Your task to perform on an android device: Open the stopwatch Image 0: 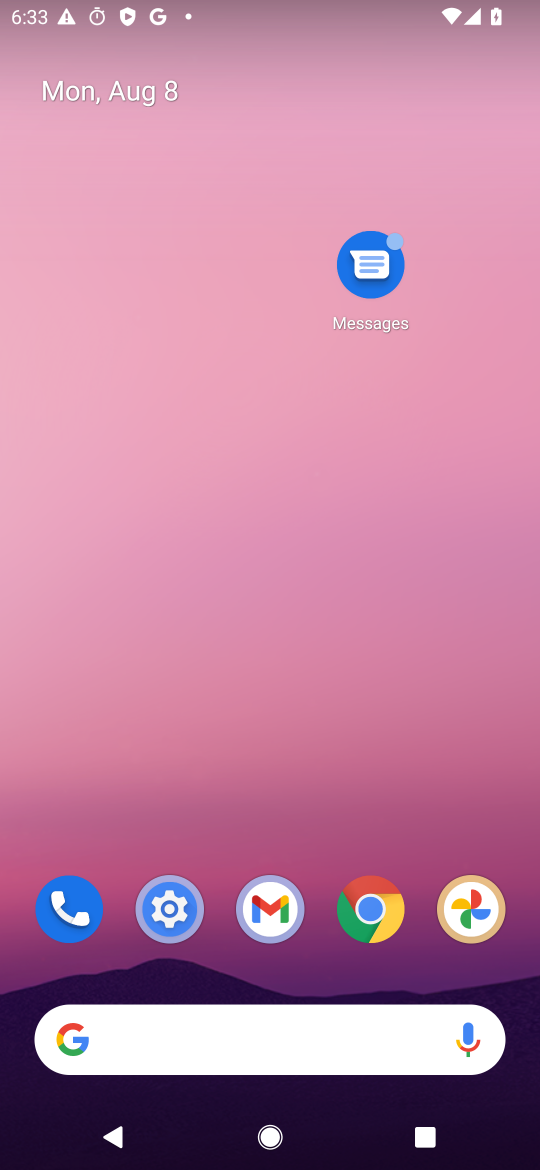
Step 0: drag from (221, 1057) to (340, 160)
Your task to perform on an android device: Open the stopwatch Image 1: 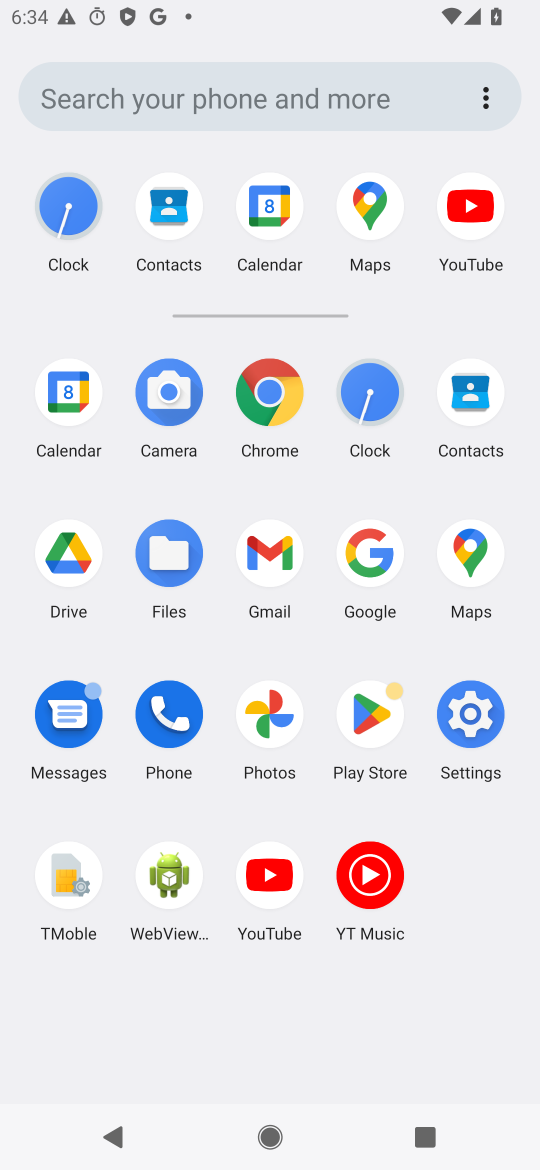
Step 1: click (360, 409)
Your task to perform on an android device: Open the stopwatch Image 2: 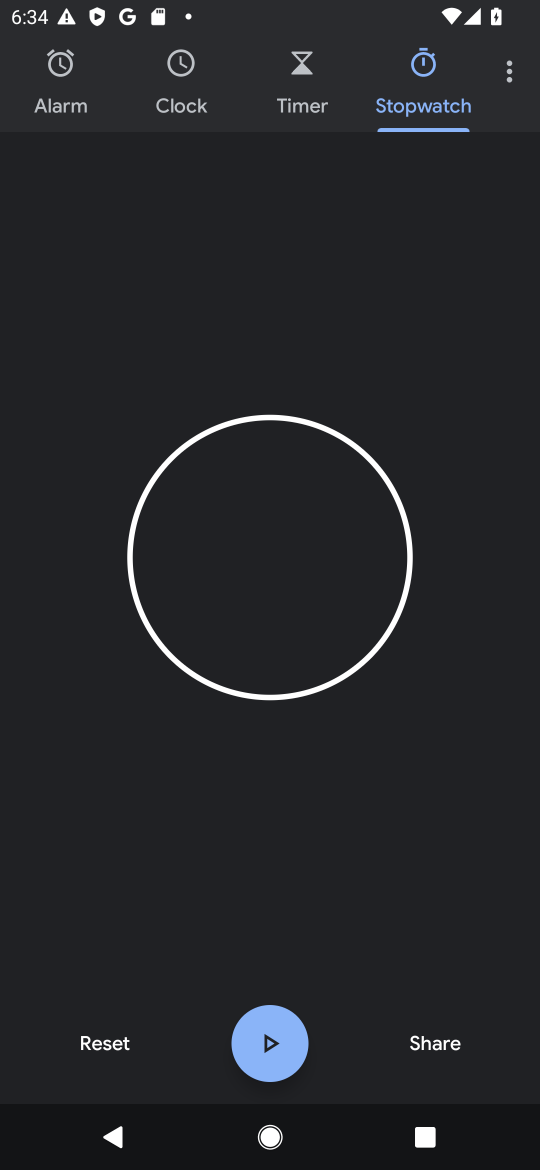
Step 2: task complete